Your task to perform on an android device: open the mobile data screen to see how much data has been used Image 0: 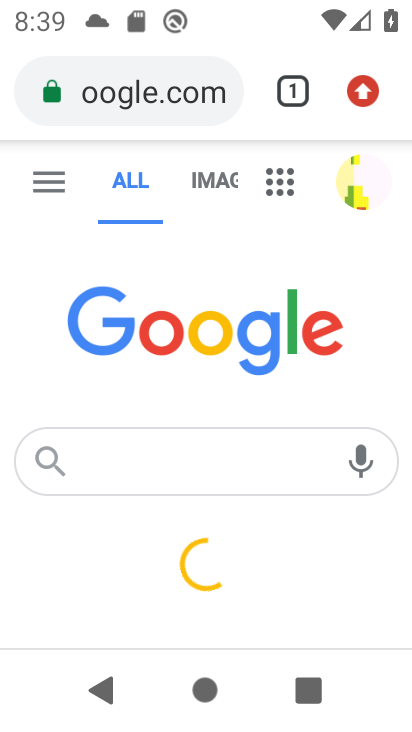
Step 0: press home button
Your task to perform on an android device: open the mobile data screen to see how much data has been used Image 1: 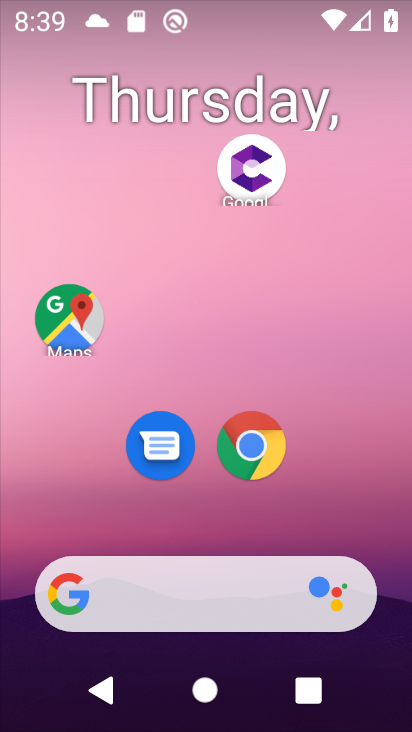
Step 1: drag from (202, 427) to (237, 78)
Your task to perform on an android device: open the mobile data screen to see how much data has been used Image 2: 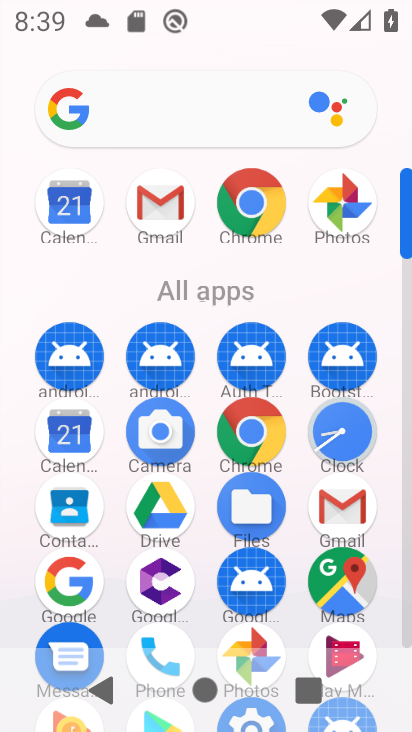
Step 2: drag from (124, 549) to (156, 275)
Your task to perform on an android device: open the mobile data screen to see how much data has been used Image 3: 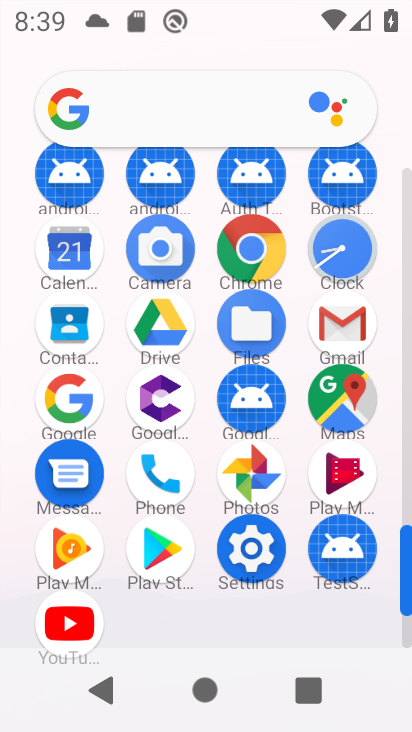
Step 3: click (258, 557)
Your task to perform on an android device: open the mobile data screen to see how much data has been used Image 4: 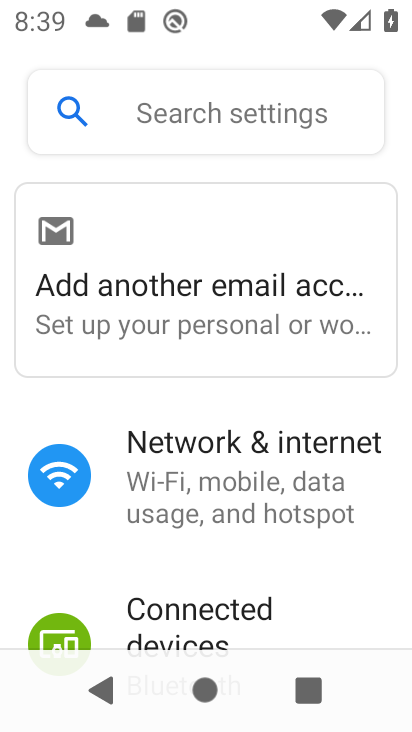
Step 4: click (244, 489)
Your task to perform on an android device: open the mobile data screen to see how much data has been used Image 5: 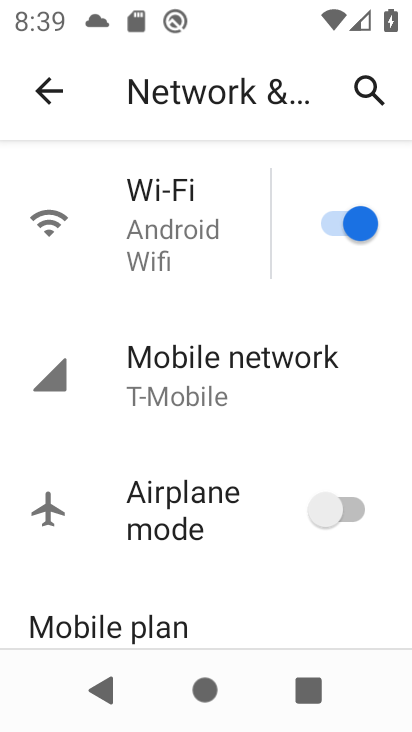
Step 5: click (254, 380)
Your task to perform on an android device: open the mobile data screen to see how much data has been used Image 6: 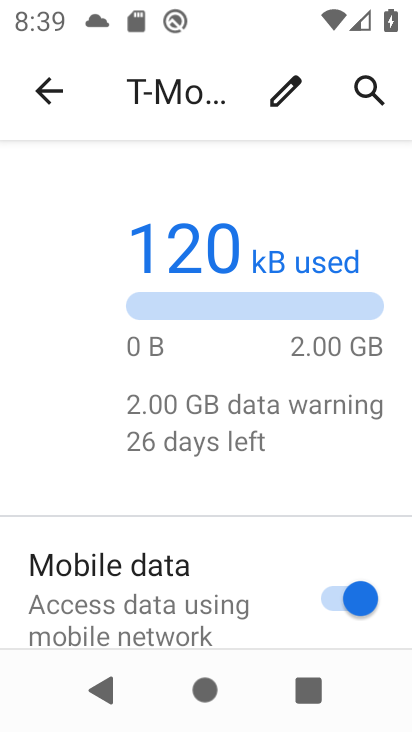
Step 6: task complete